Your task to perform on an android device: add a contact Image 0: 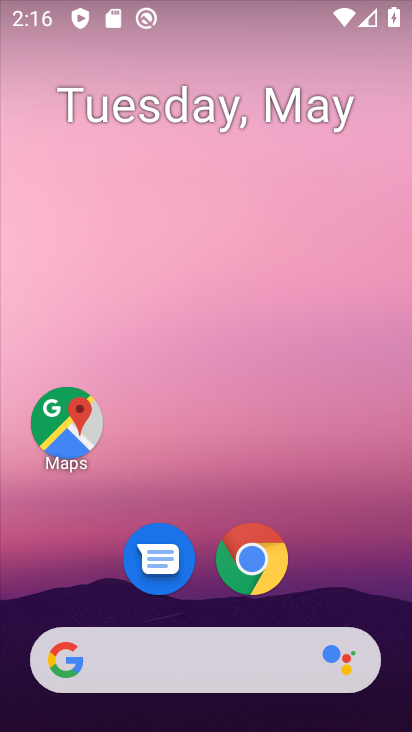
Step 0: drag from (324, 576) to (282, 66)
Your task to perform on an android device: add a contact Image 1: 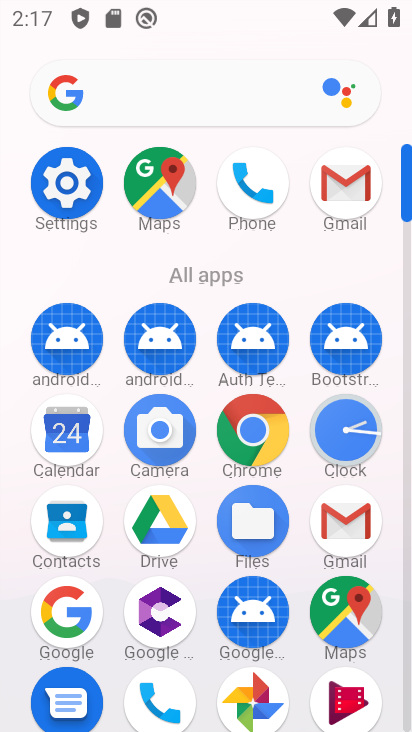
Step 1: click (67, 520)
Your task to perform on an android device: add a contact Image 2: 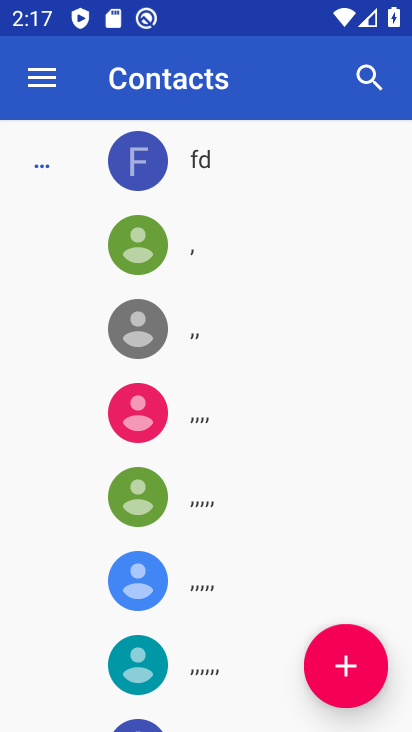
Step 2: click (343, 667)
Your task to perform on an android device: add a contact Image 3: 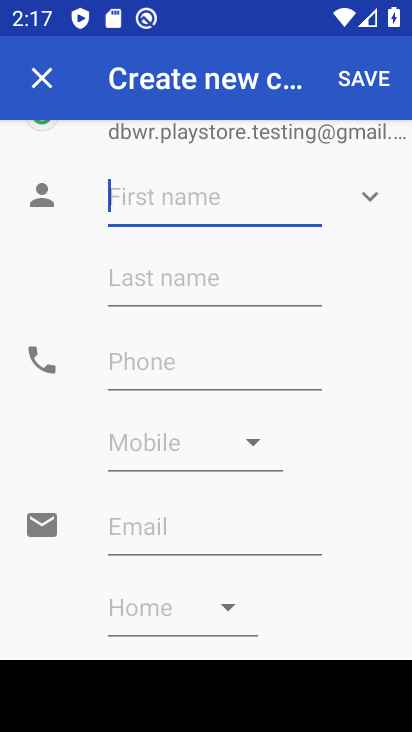
Step 3: click (194, 203)
Your task to perform on an android device: add a contact Image 4: 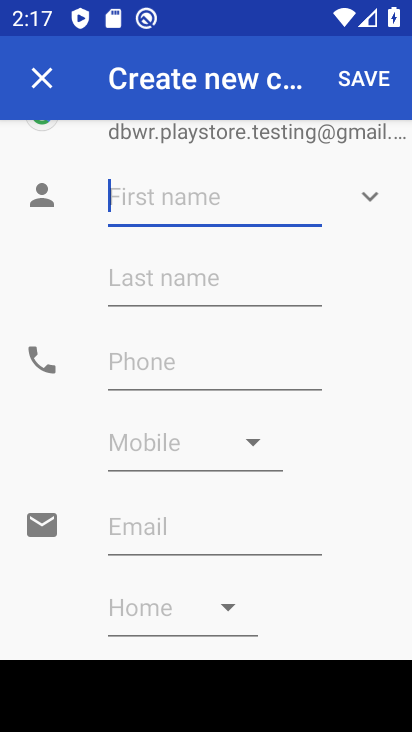
Step 4: click (220, 207)
Your task to perform on an android device: add a contact Image 5: 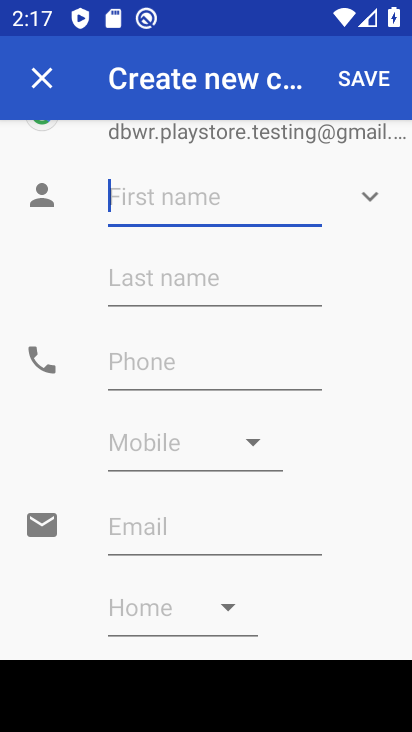
Step 5: type "Kulbhooshan"
Your task to perform on an android device: add a contact Image 6: 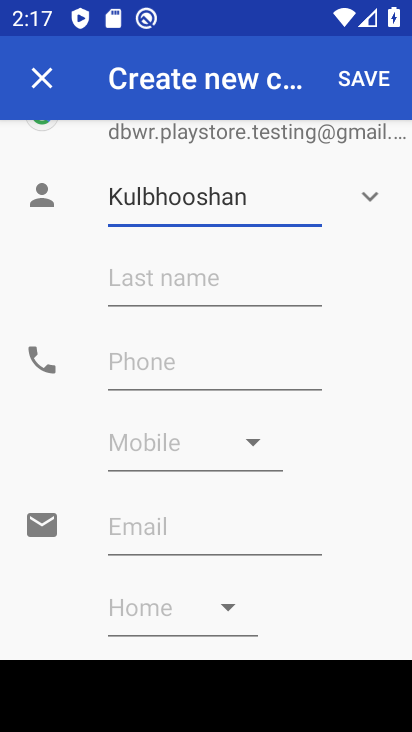
Step 6: click (180, 271)
Your task to perform on an android device: add a contact Image 7: 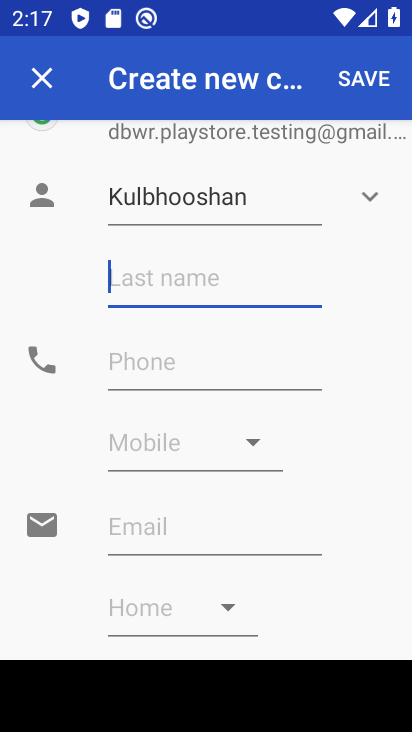
Step 7: type "Kharbanda"
Your task to perform on an android device: add a contact Image 8: 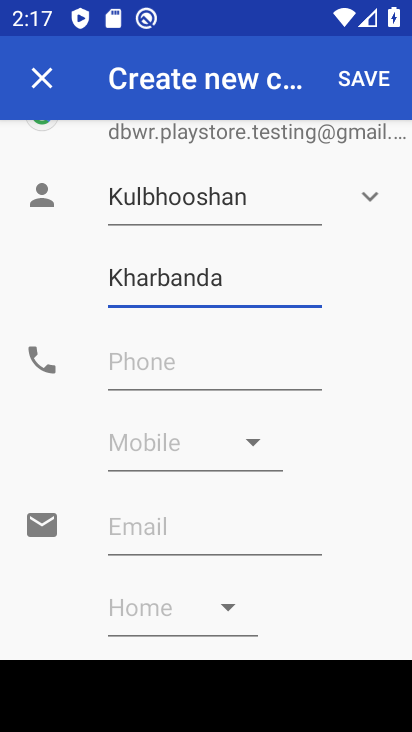
Step 8: click (228, 378)
Your task to perform on an android device: add a contact Image 9: 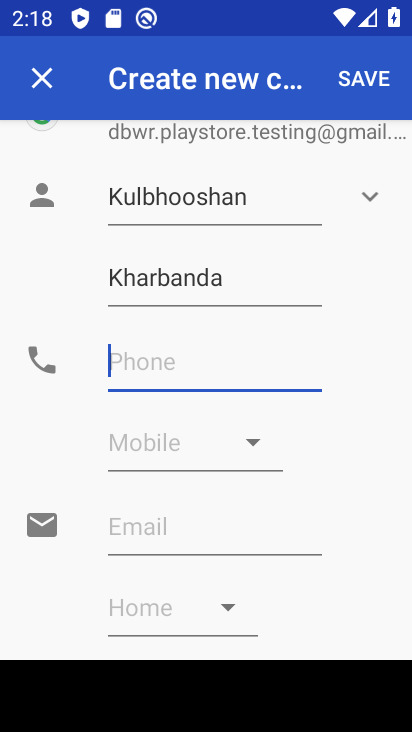
Step 9: type "09918567432"
Your task to perform on an android device: add a contact Image 10: 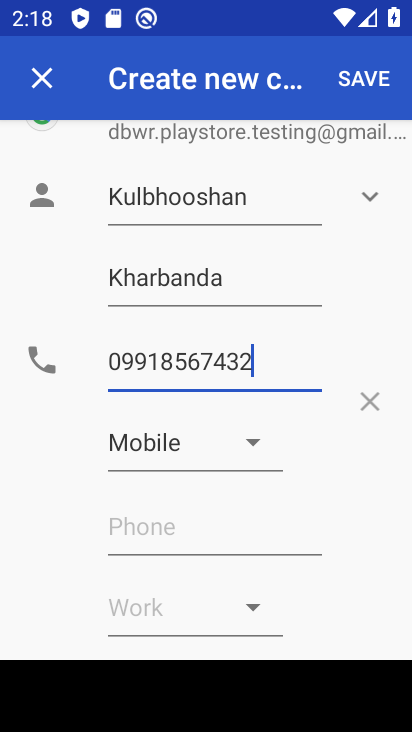
Step 10: click (358, 85)
Your task to perform on an android device: add a contact Image 11: 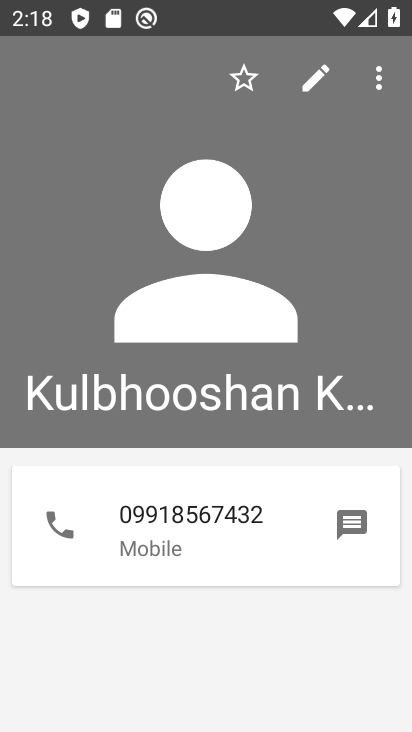
Step 11: task complete